Your task to perform on an android device: Add "razer blade" to the cart on walmart.com, then select checkout. Image 0: 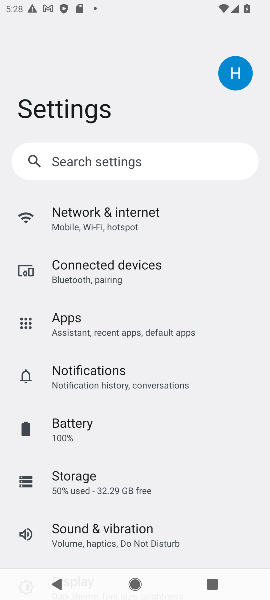
Step 0: press home button
Your task to perform on an android device: Add "razer blade" to the cart on walmart.com, then select checkout. Image 1: 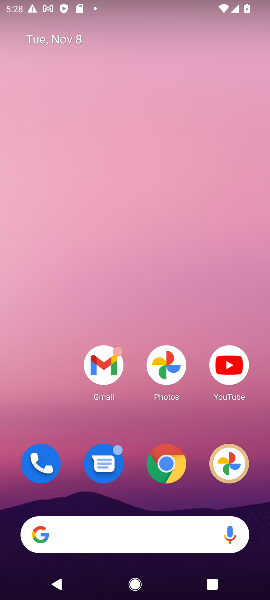
Step 1: click (182, 463)
Your task to perform on an android device: Add "razer blade" to the cart on walmart.com, then select checkout. Image 2: 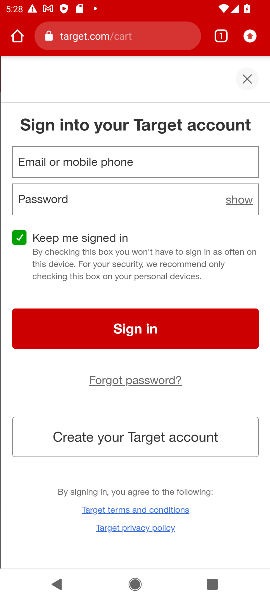
Step 2: click (85, 32)
Your task to perform on an android device: Add "razer blade" to the cart on walmart.com, then select checkout. Image 3: 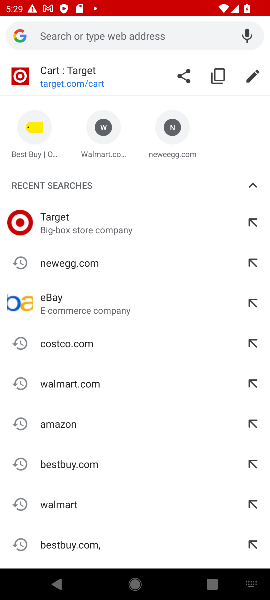
Step 3: click (71, 382)
Your task to perform on an android device: Add "razer blade" to the cart on walmart.com, then select checkout. Image 4: 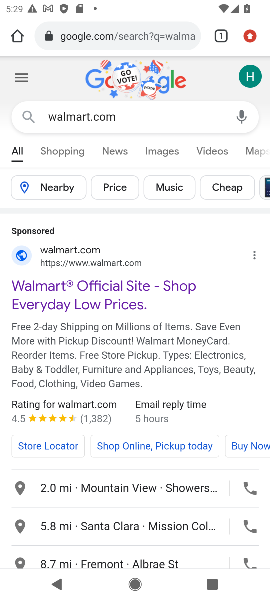
Step 4: click (100, 300)
Your task to perform on an android device: Add "razer blade" to the cart on walmart.com, then select checkout. Image 5: 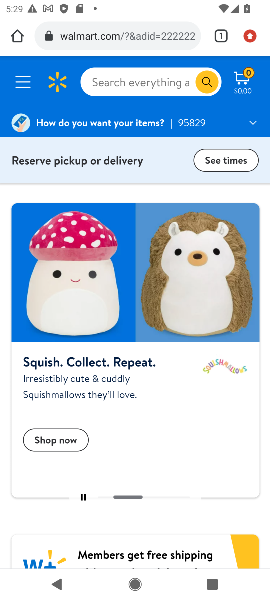
Step 5: click (125, 82)
Your task to perform on an android device: Add "razer blade" to the cart on walmart.com, then select checkout. Image 6: 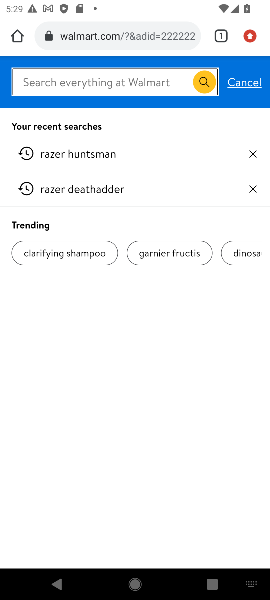
Step 6: type "razer blade"
Your task to perform on an android device: Add "razer blade" to the cart on walmart.com, then select checkout. Image 7: 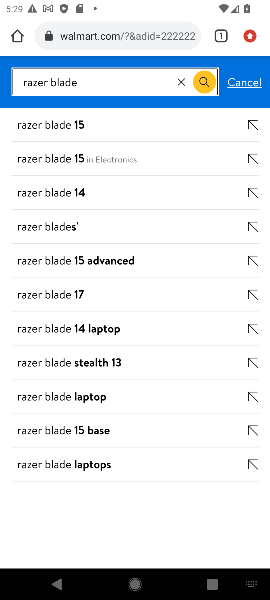
Step 7: click (199, 84)
Your task to perform on an android device: Add "razer blade" to the cart on walmart.com, then select checkout. Image 8: 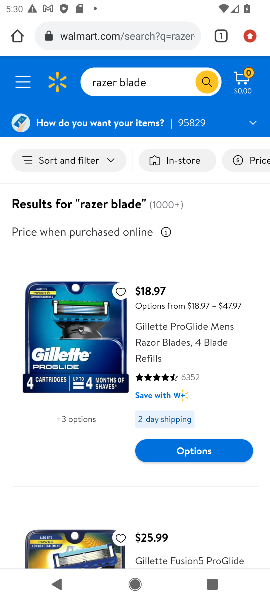
Step 8: click (205, 87)
Your task to perform on an android device: Add "razer blade" to the cart on walmart.com, then select checkout. Image 9: 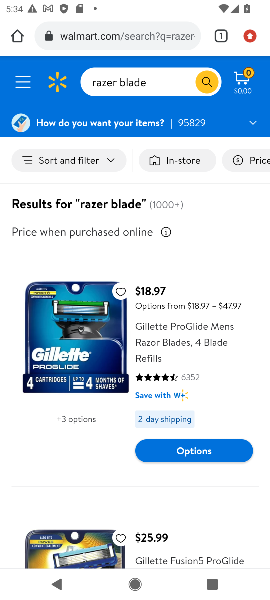
Step 9: task complete